Your task to perform on an android device: Go to sound settings Image 0: 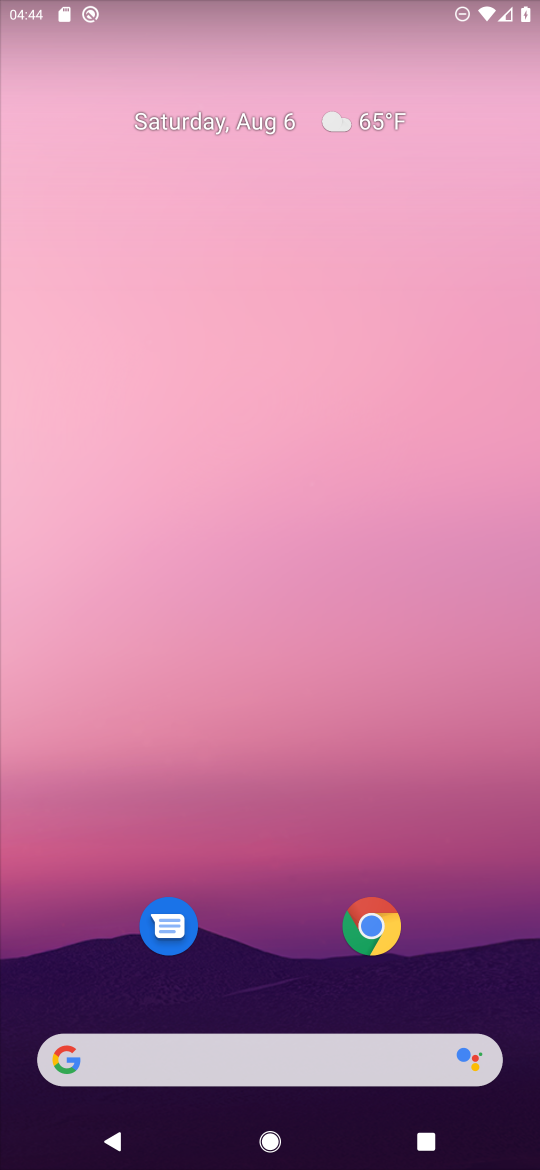
Step 0: drag from (309, 982) to (305, 268)
Your task to perform on an android device: Go to sound settings Image 1: 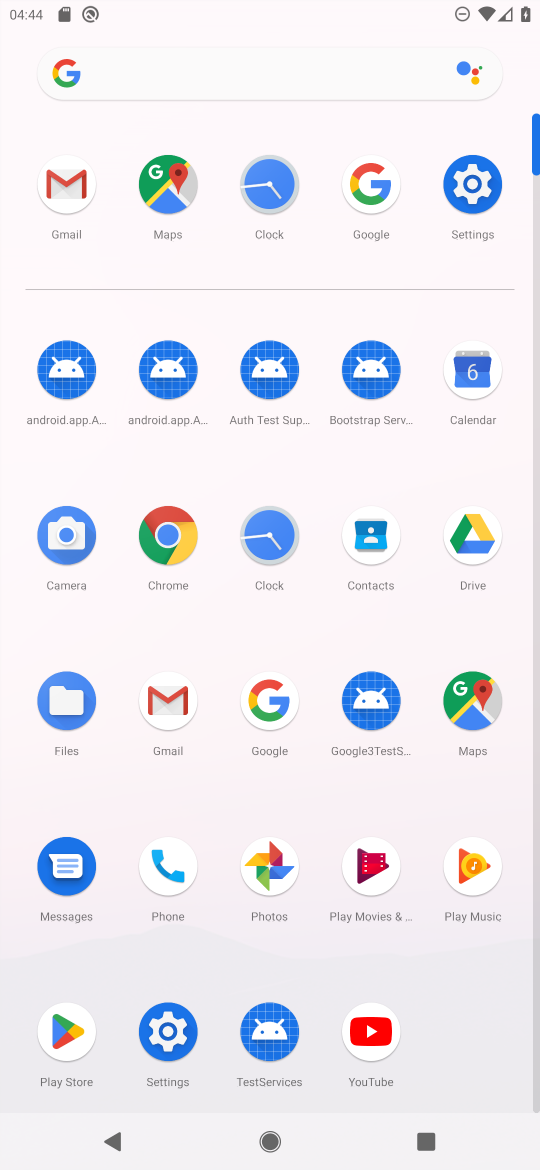
Step 1: click (459, 176)
Your task to perform on an android device: Go to sound settings Image 2: 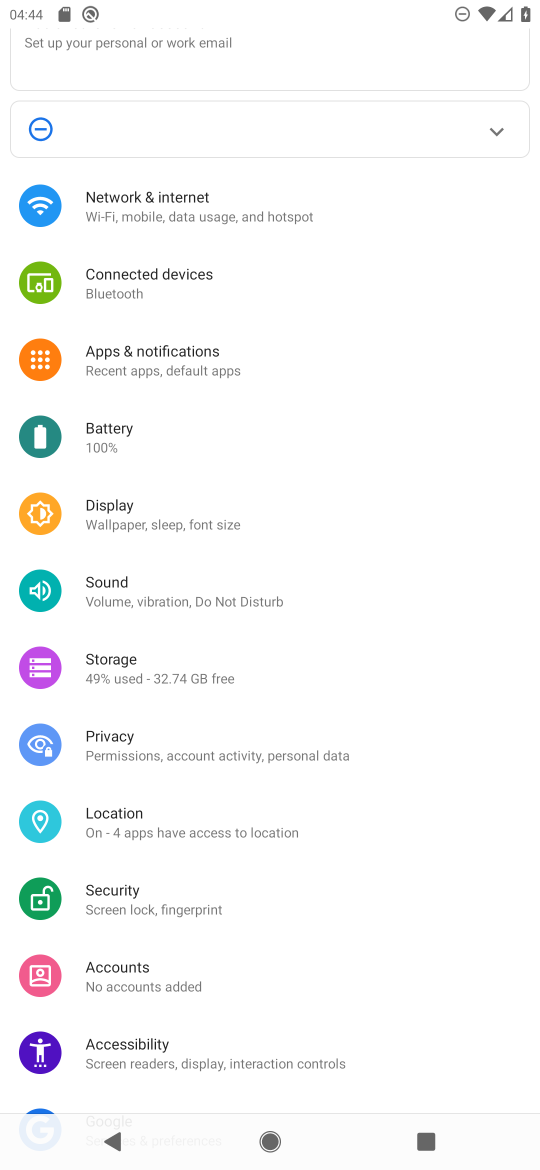
Step 2: click (158, 606)
Your task to perform on an android device: Go to sound settings Image 3: 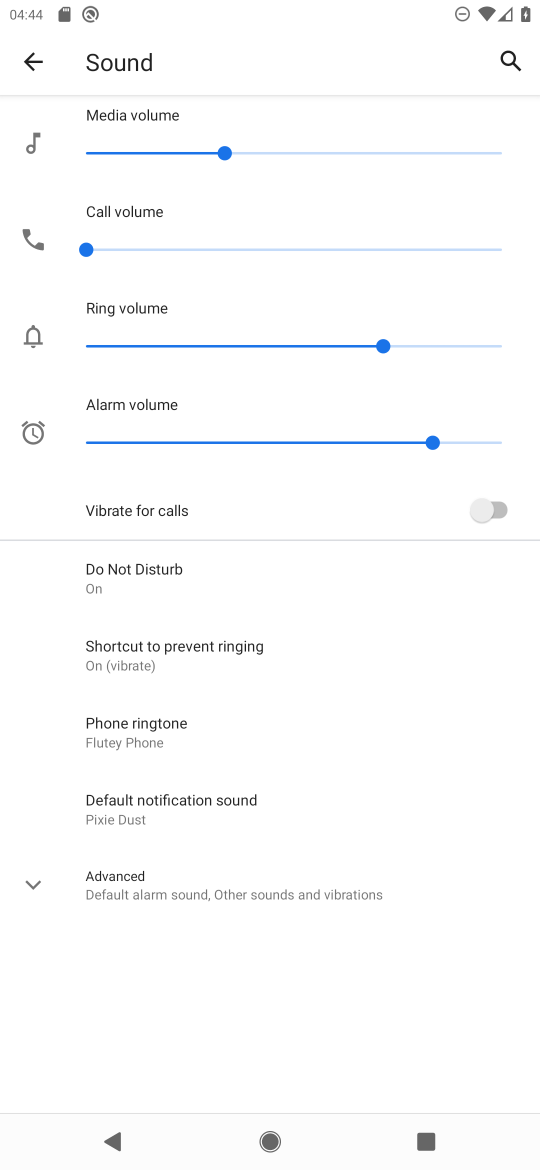
Step 3: task complete